Your task to perform on an android device: Show me popular videos on Youtube Image 0: 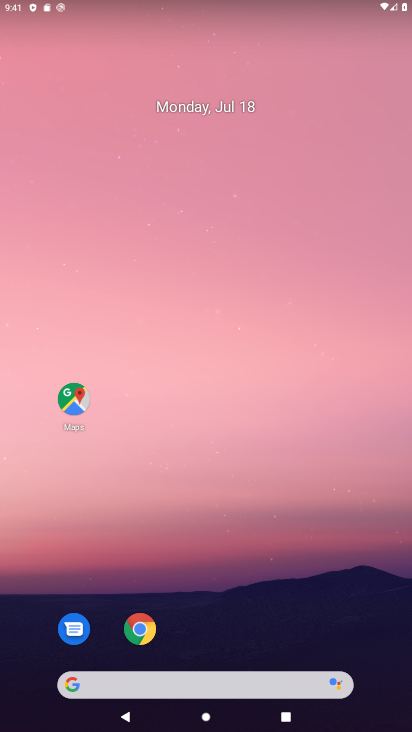
Step 0: drag from (204, 685) to (168, 273)
Your task to perform on an android device: Show me popular videos on Youtube Image 1: 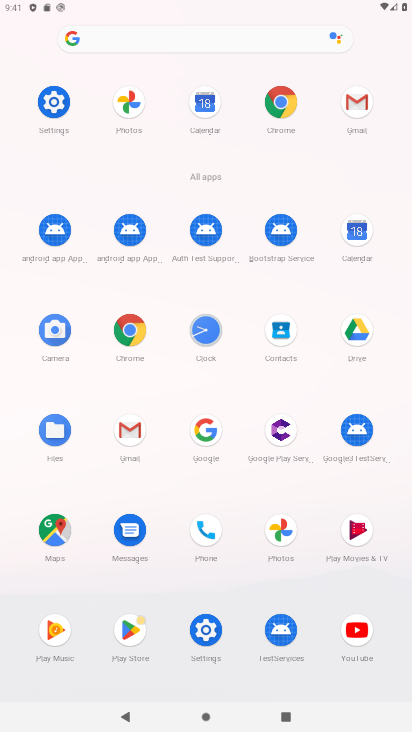
Step 1: click (361, 623)
Your task to perform on an android device: Show me popular videos on Youtube Image 2: 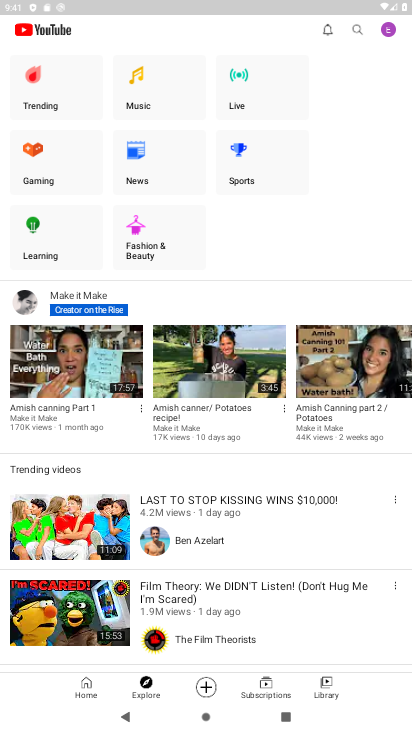
Step 2: click (44, 92)
Your task to perform on an android device: Show me popular videos on Youtube Image 3: 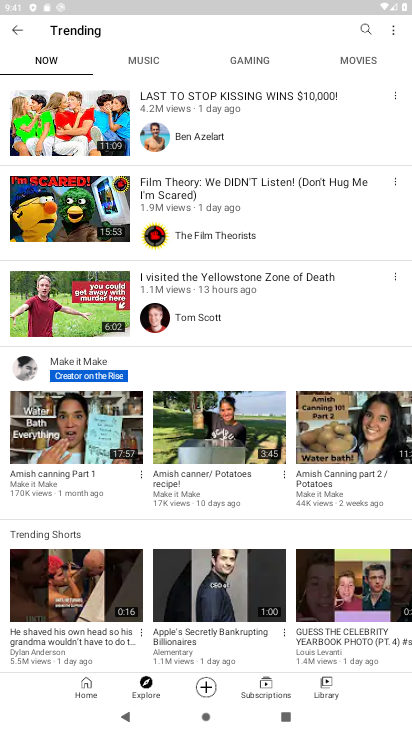
Step 3: task complete